Your task to perform on an android device: Clear all items from cart on newegg. Image 0: 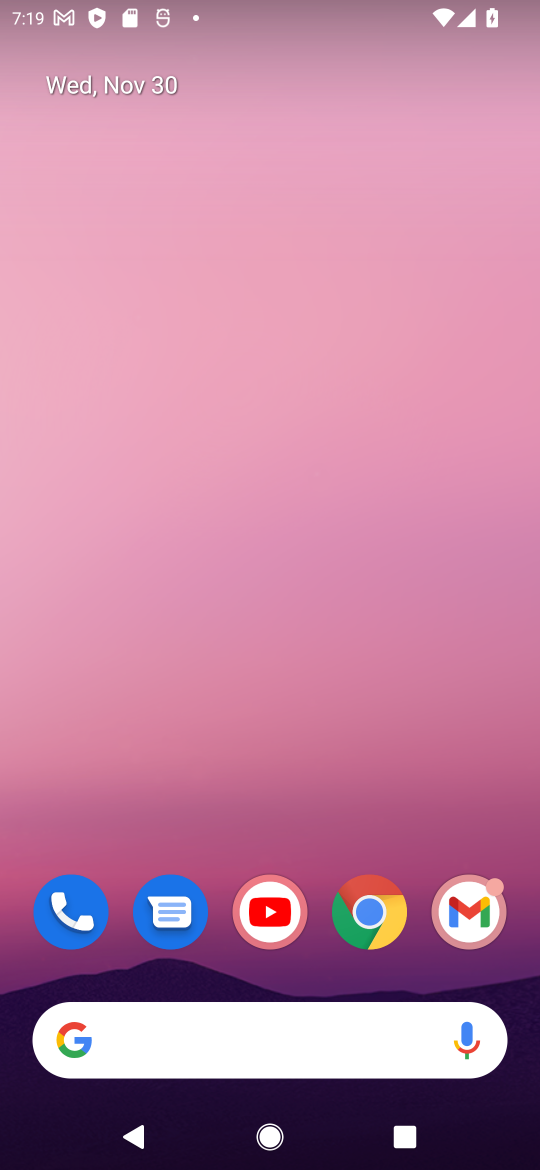
Step 0: click (263, 1038)
Your task to perform on an android device: Clear all items from cart on newegg. Image 1: 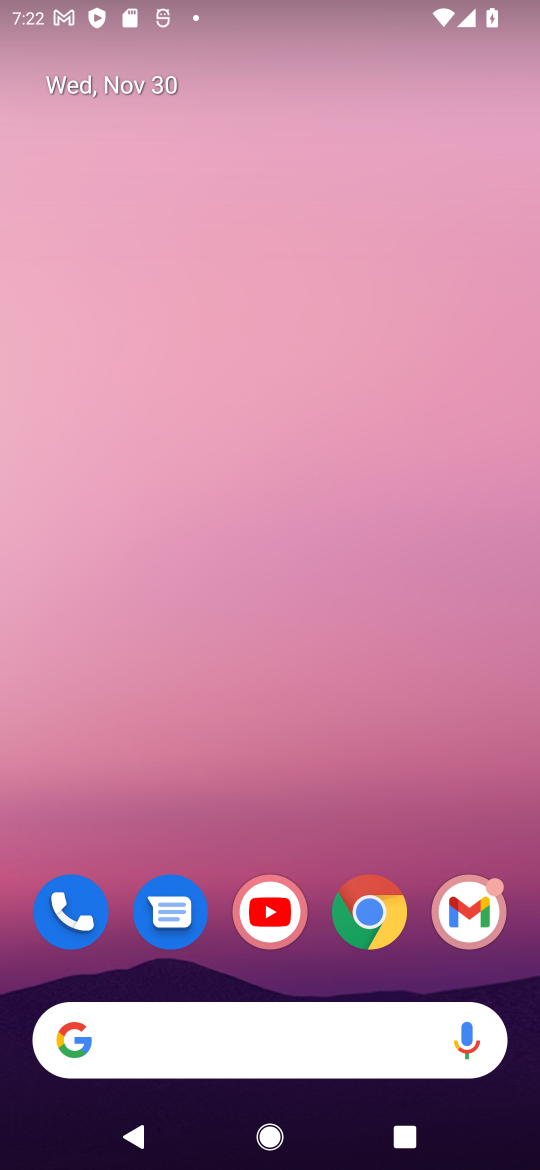
Step 1: click (254, 1050)
Your task to perform on an android device: Clear all items from cart on newegg. Image 2: 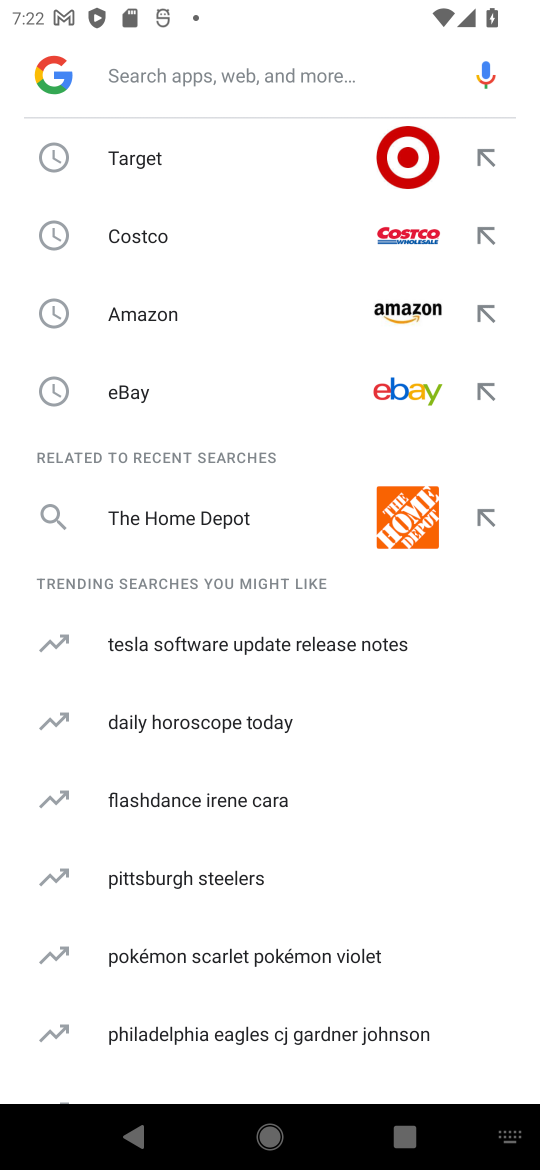
Step 2: click (288, 1045)
Your task to perform on an android device: Clear all items from cart on newegg. Image 3: 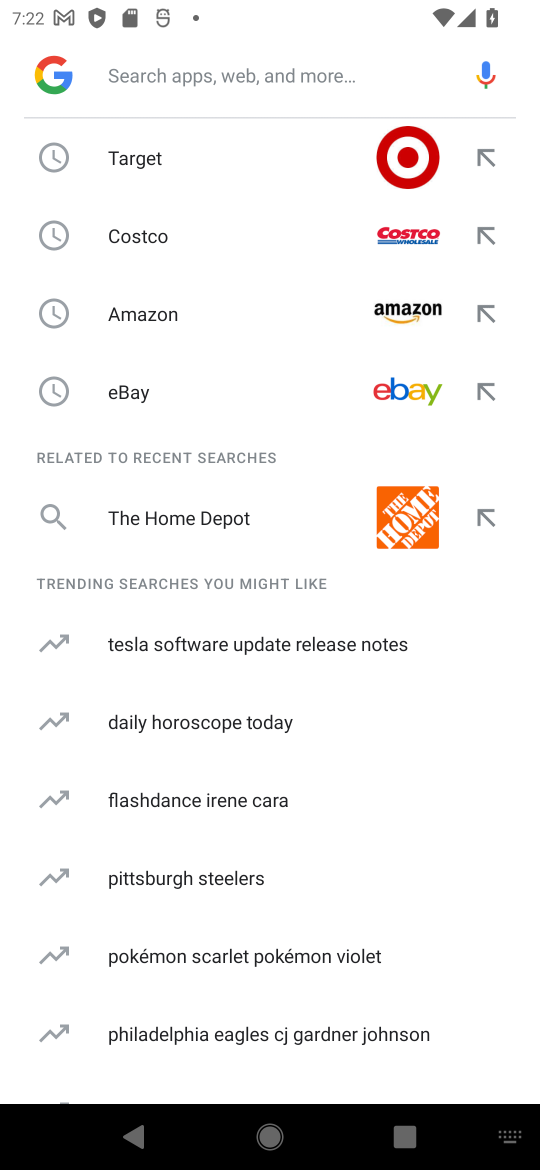
Step 3: click (269, 1046)
Your task to perform on an android device: Clear all items from cart on newegg. Image 4: 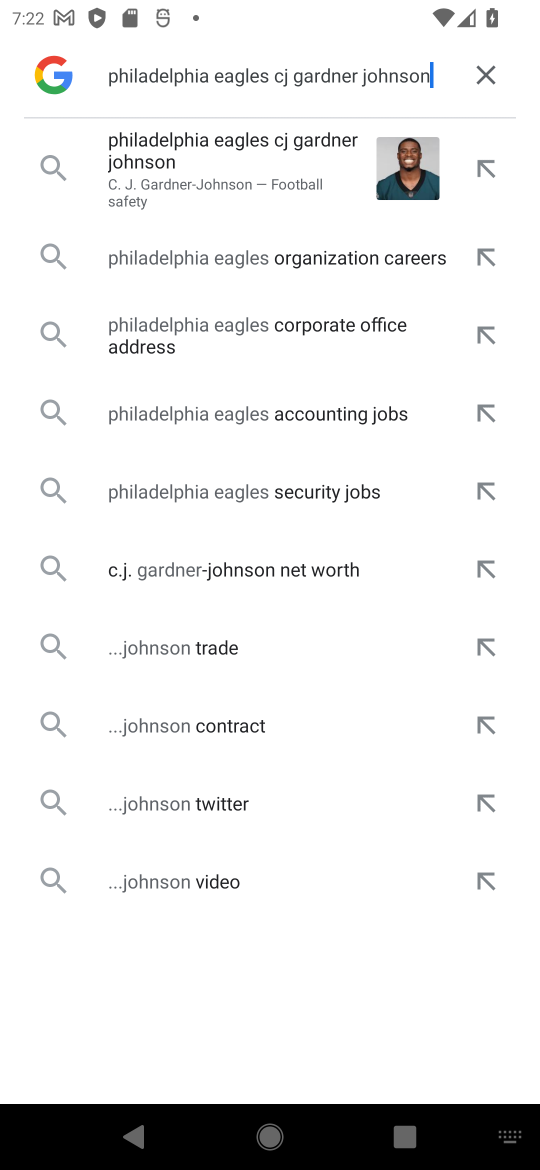
Step 4: click (479, 80)
Your task to perform on an android device: Clear all items from cart on newegg. Image 5: 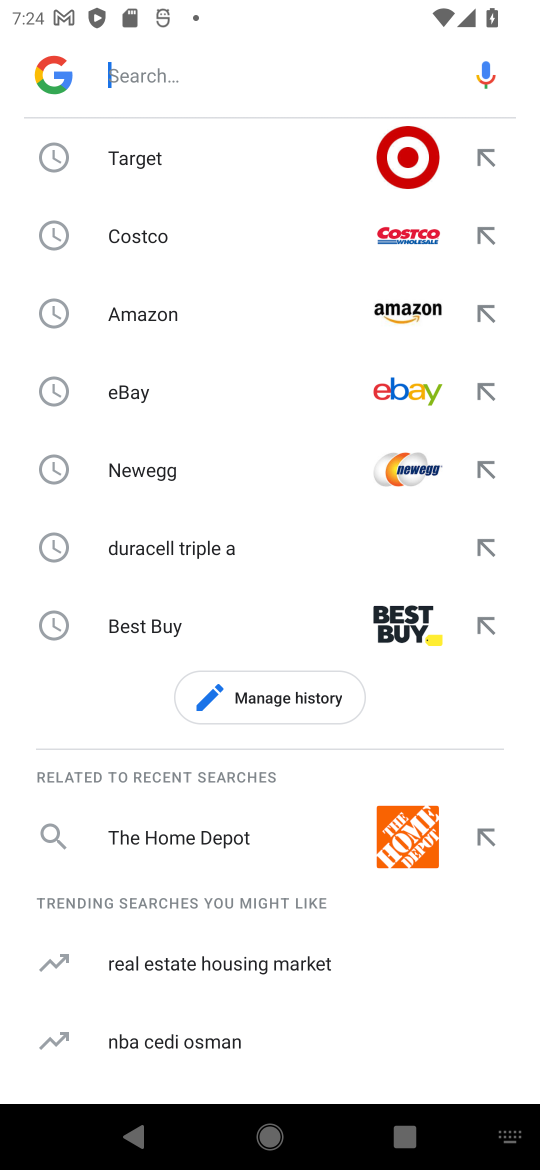
Step 5: type "newegg"
Your task to perform on an android device: Clear all items from cart on newegg. Image 6: 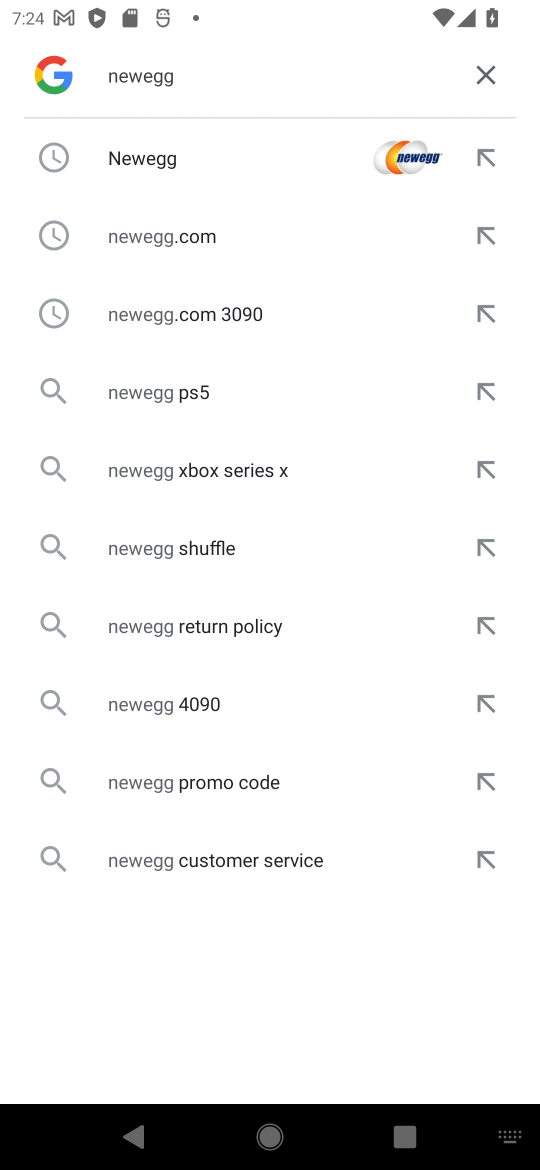
Step 6: click (170, 148)
Your task to perform on an android device: Clear all items from cart on newegg. Image 7: 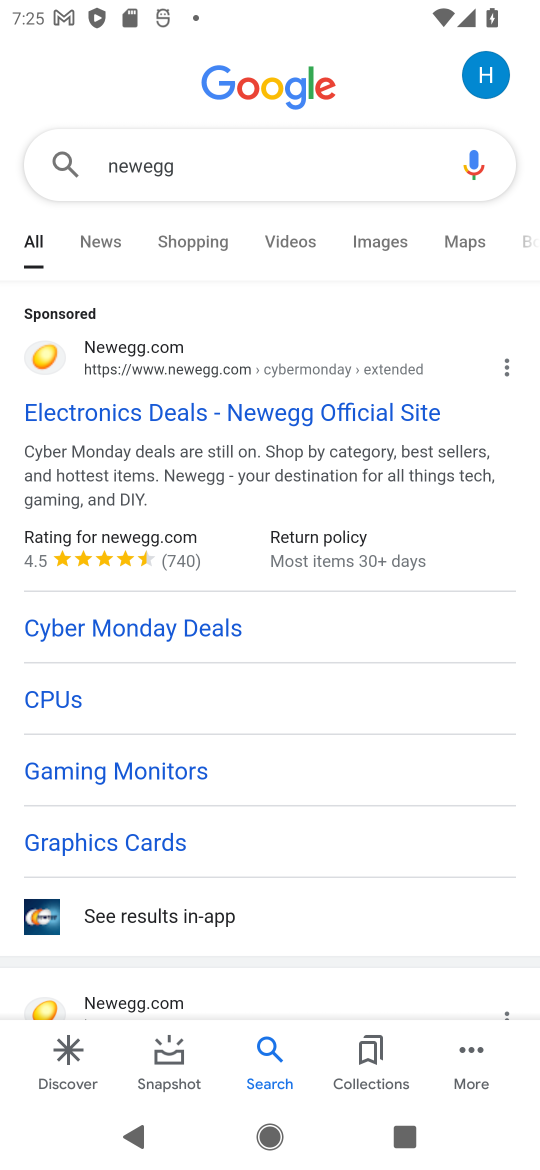
Step 7: click (206, 409)
Your task to perform on an android device: Clear all items from cart on newegg. Image 8: 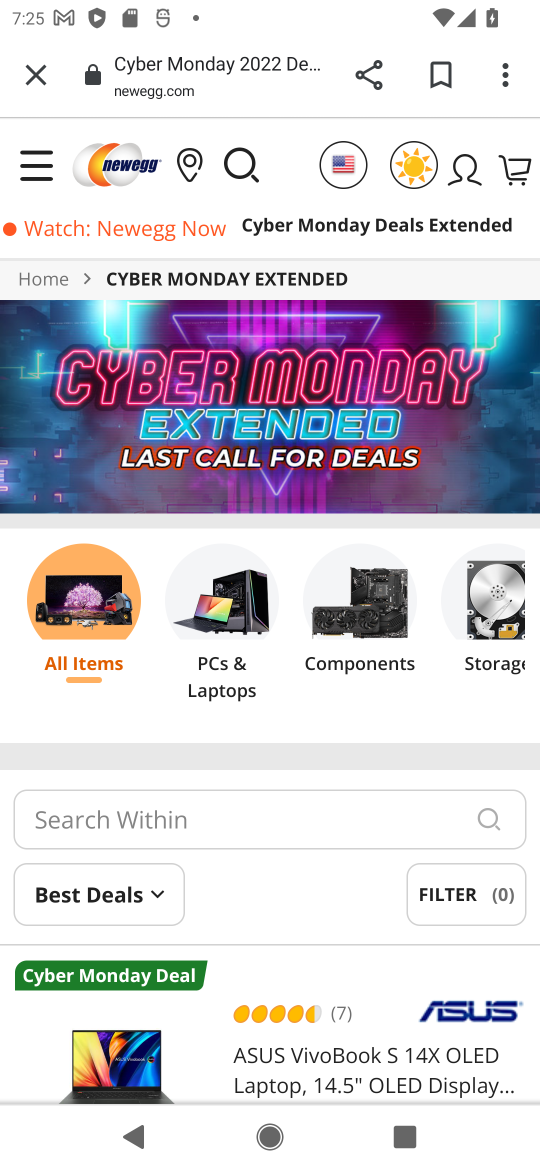
Step 8: click (511, 170)
Your task to perform on an android device: Clear all items from cart on newegg. Image 9: 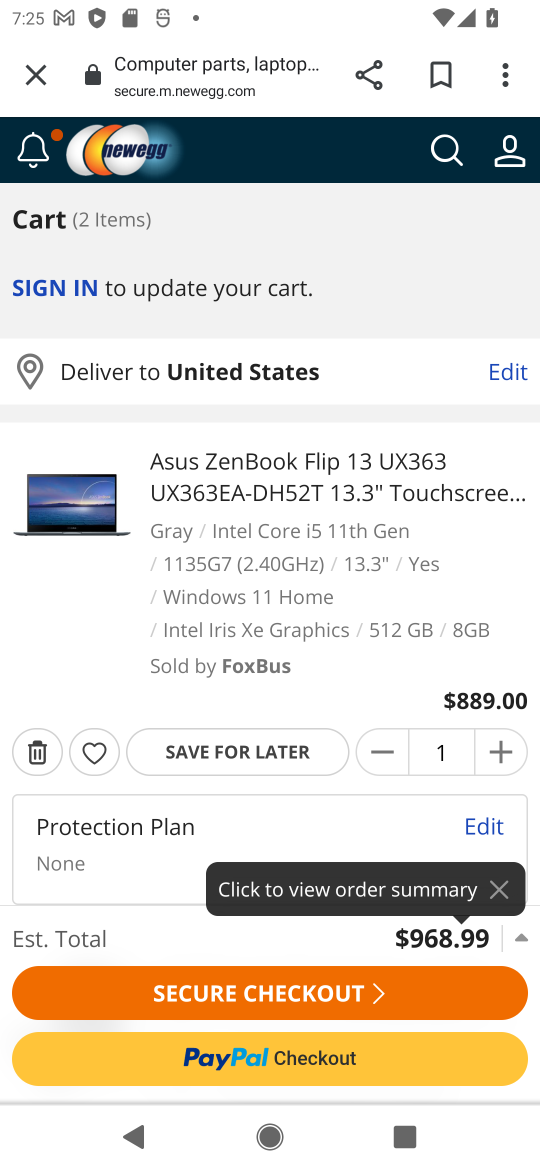
Step 9: click (35, 761)
Your task to perform on an android device: Clear all items from cart on newegg. Image 10: 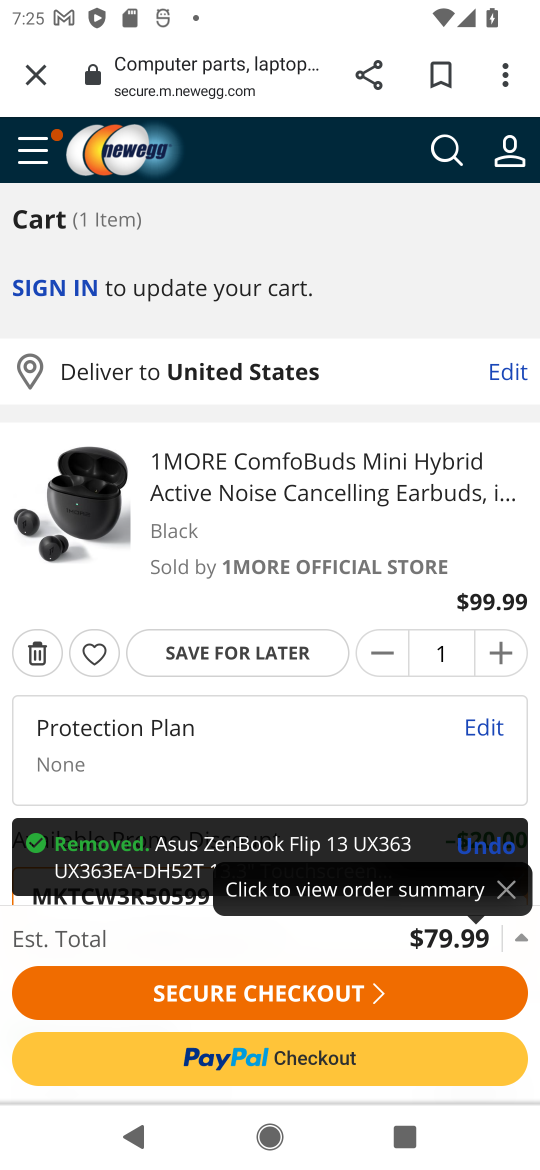
Step 10: click (33, 657)
Your task to perform on an android device: Clear all items from cart on newegg. Image 11: 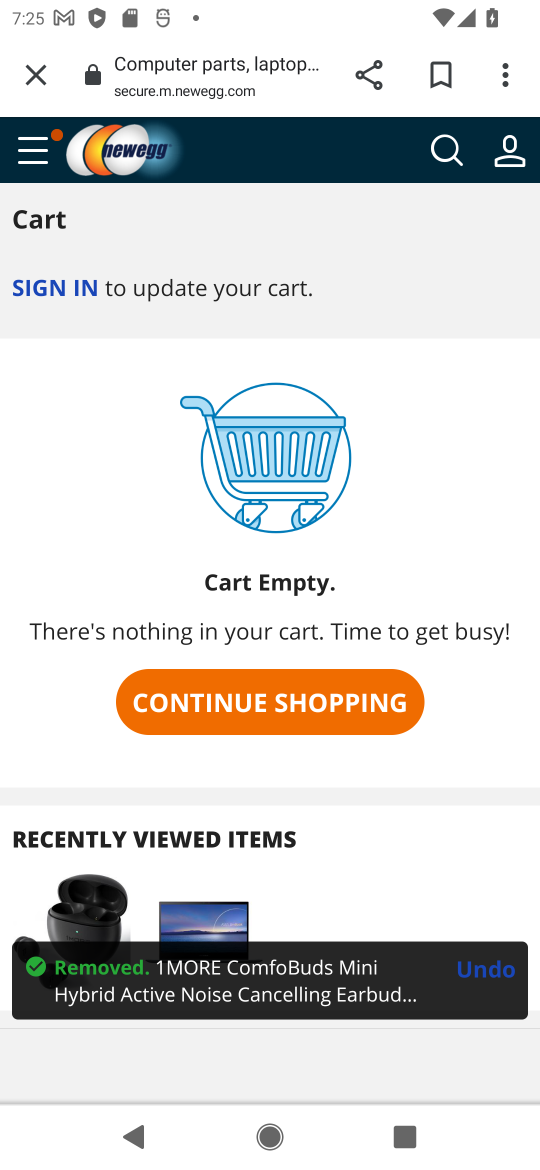
Step 11: task complete